Your task to perform on an android device: Search for Mexican restaurants on Maps Image 0: 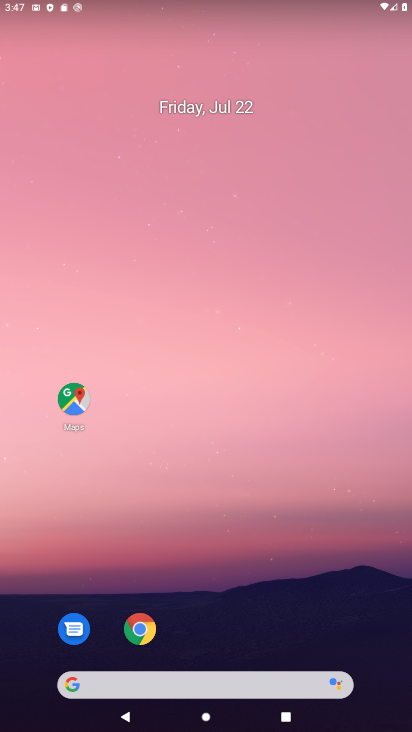
Step 0: click (79, 406)
Your task to perform on an android device: Search for Mexican restaurants on Maps Image 1: 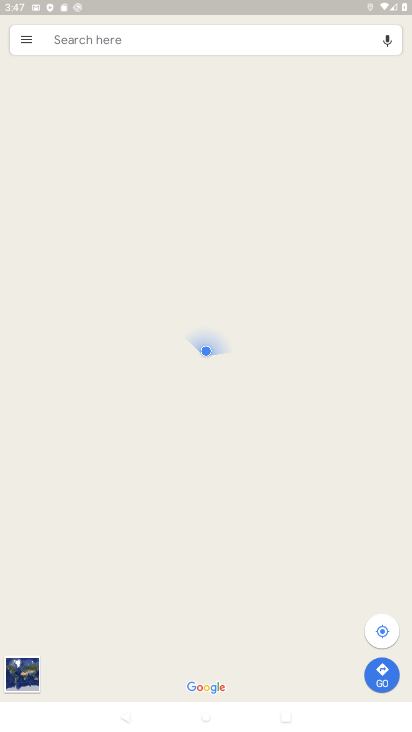
Step 1: click (125, 39)
Your task to perform on an android device: Search for Mexican restaurants on Maps Image 2: 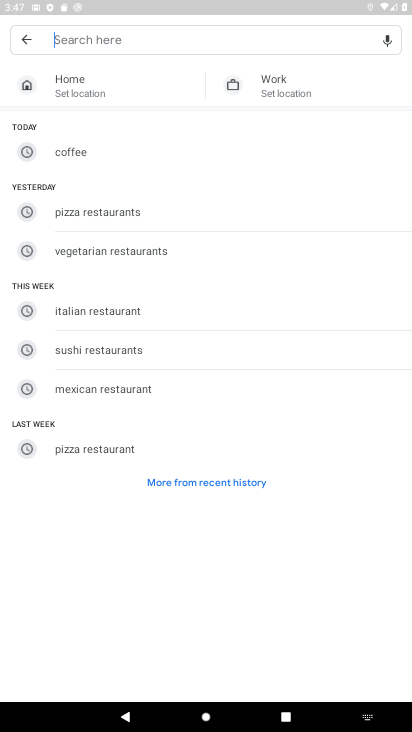
Step 2: click (141, 386)
Your task to perform on an android device: Search for Mexican restaurants on Maps Image 3: 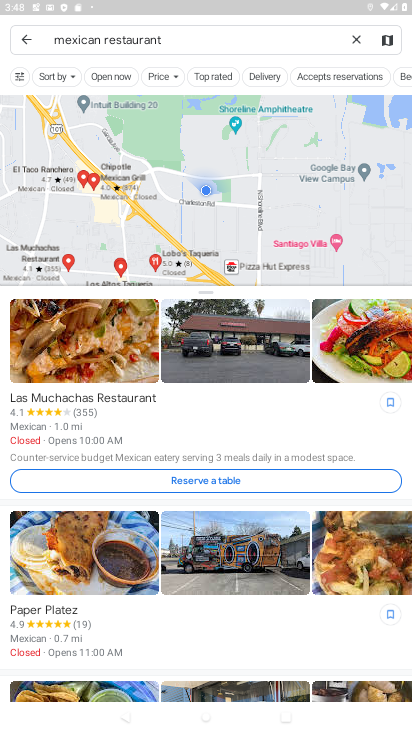
Step 3: task complete